Your task to perform on an android device: Open Google Chrome Image 0: 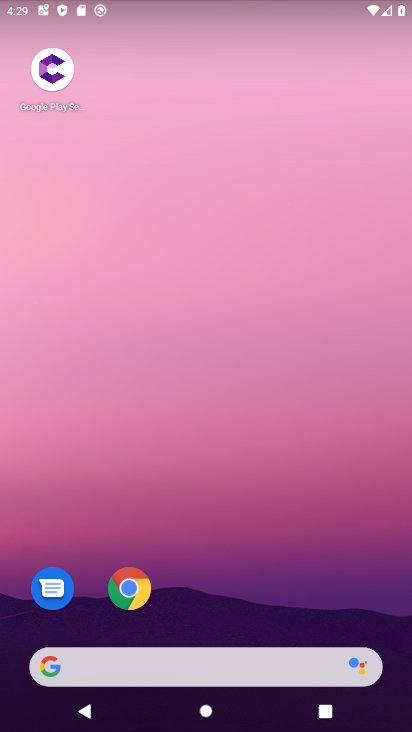
Step 0: drag from (249, 599) to (303, 108)
Your task to perform on an android device: Open Google Chrome Image 1: 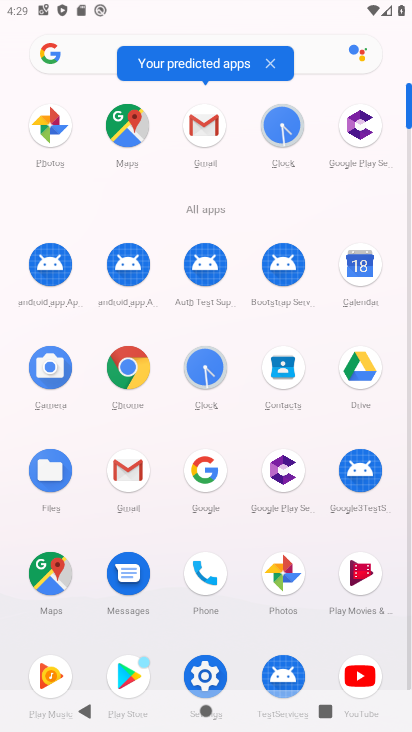
Step 1: click (116, 371)
Your task to perform on an android device: Open Google Chrome Image 2: 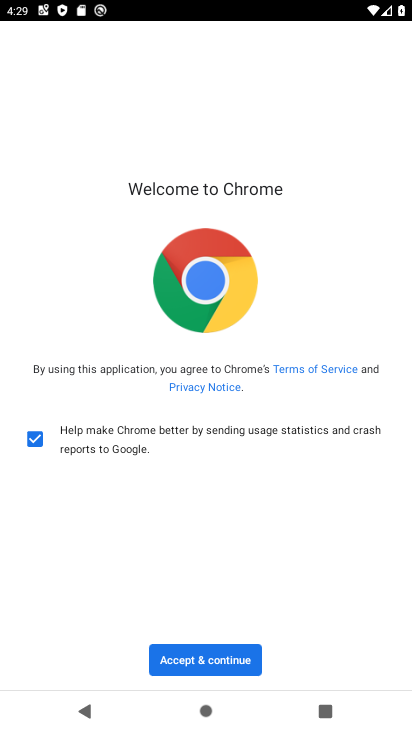
Step 2: click (244, 654)
Your task to perform on an android device: Open Google Chrome Image 3: 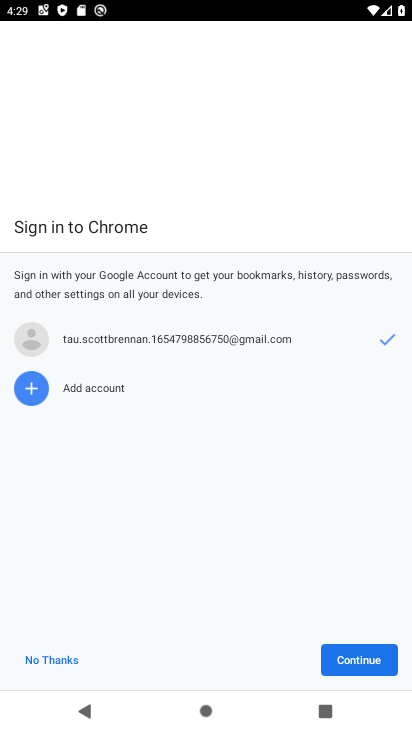
Step 3: click (378, 658)
Your task to perform on an android device: Open Google Chrome Image 4: 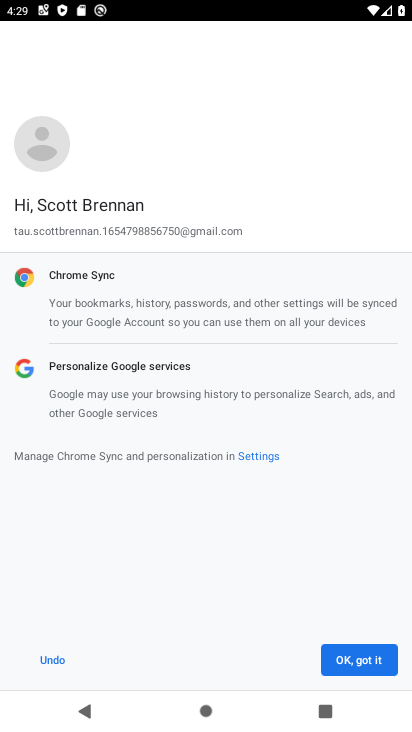
Step 4: click (383, 660)
Your task to perform on an android device: Open Google Chrome Image 5: 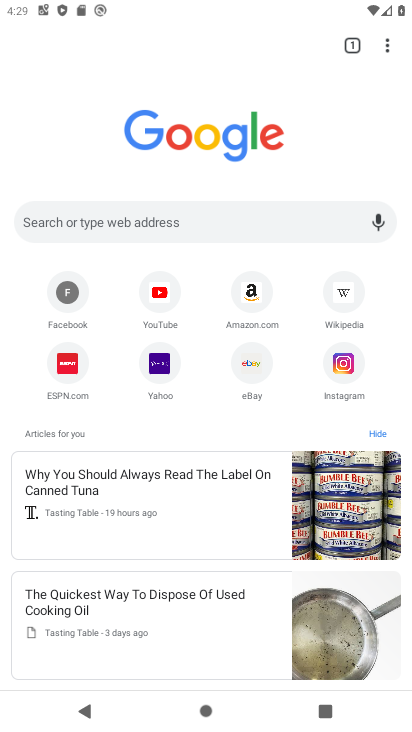
Step 5: task complete